Your task to perform on an android device: Find coffee shops on Maps Image 0: 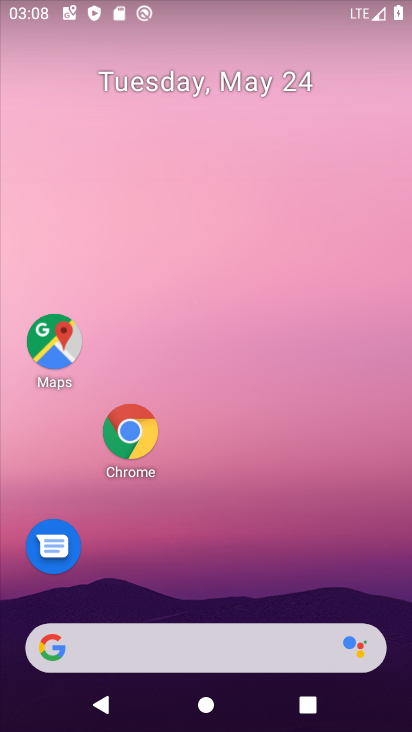
Step 0: drag from (341, 199) to (341, 88)
Your task to perform on an android device: Find coffee shops on Maps Image 1: 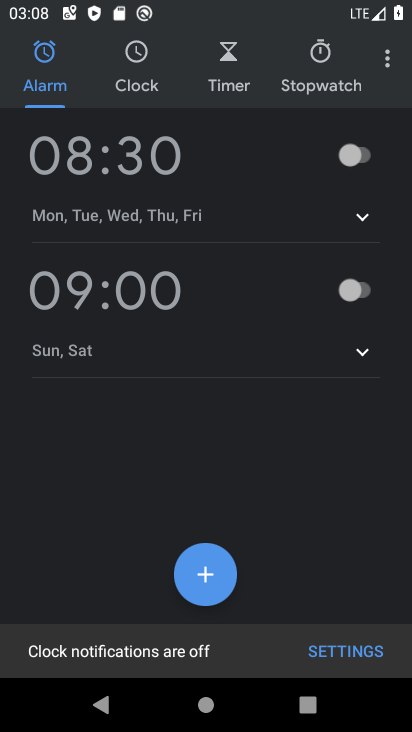
Step 1: press home button
Your task to perform on an android device: Find coffee shops on Maps Image 2: 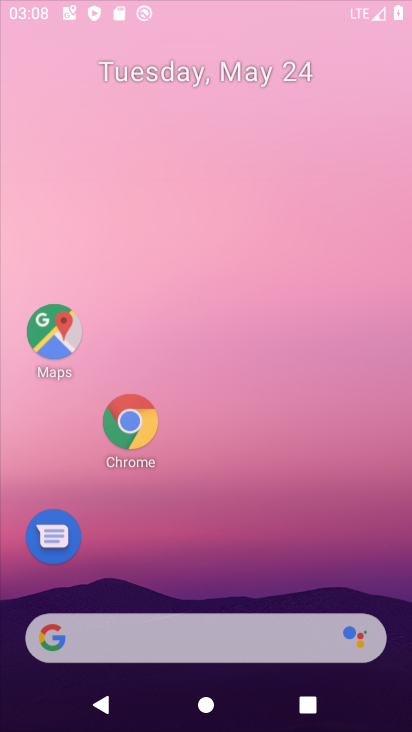
Step 2: drag from (137, 558) to (201, 155)
Your task to perform on an android device: Find coffee shops on Maps Image 3: 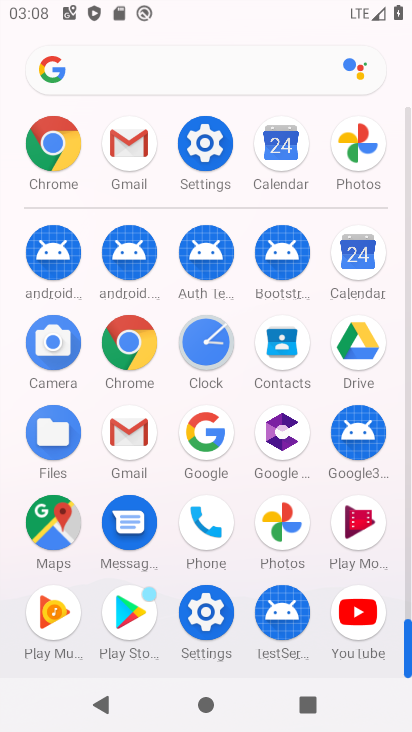
Step 3: click (45, 515)
Your task to perform on an android device: Find coffee shops on Maps Image 4: 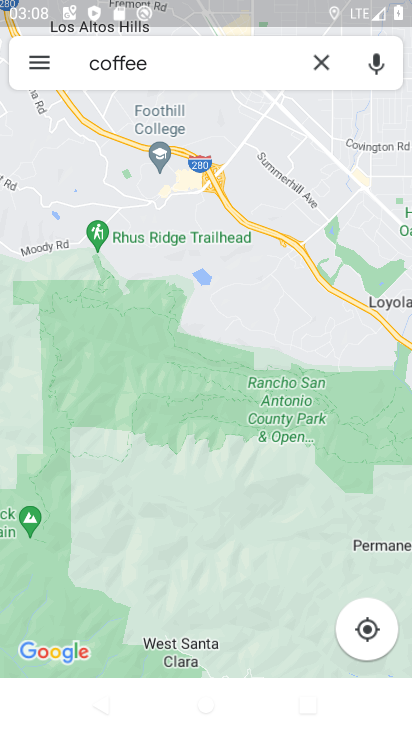
Step 4: click (319, 60)
Your task to perform on an android device: Find coffee shops on Maps Image 5: 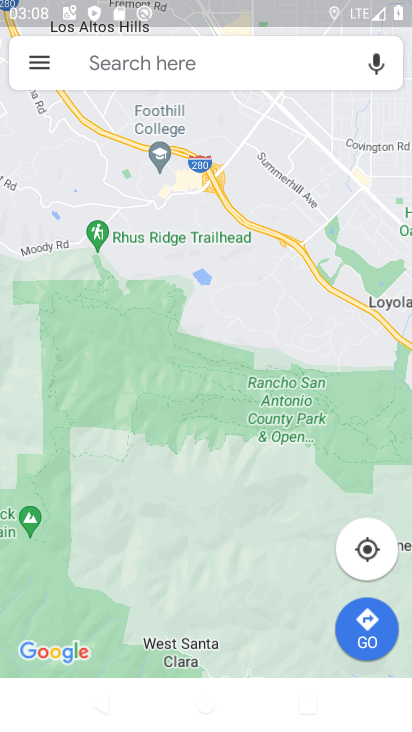
Step 5: click (156, 72)
Your task to perform on an android device: Find coffee shops on Maps Image 6: 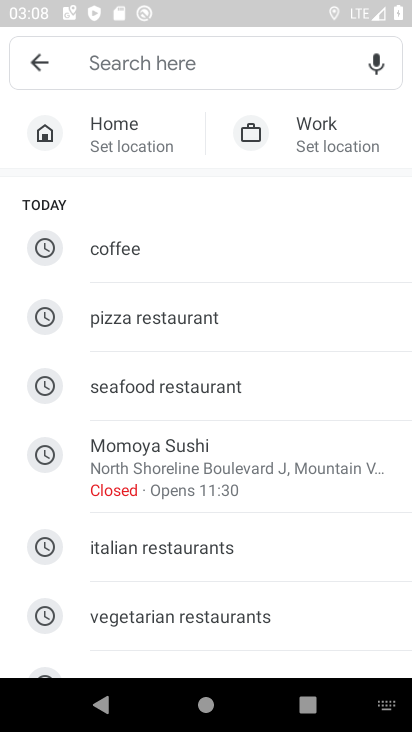
Step 6: click (136, 242)
Your task to perform on an android device: Find coffee shops on Maps Image 7: 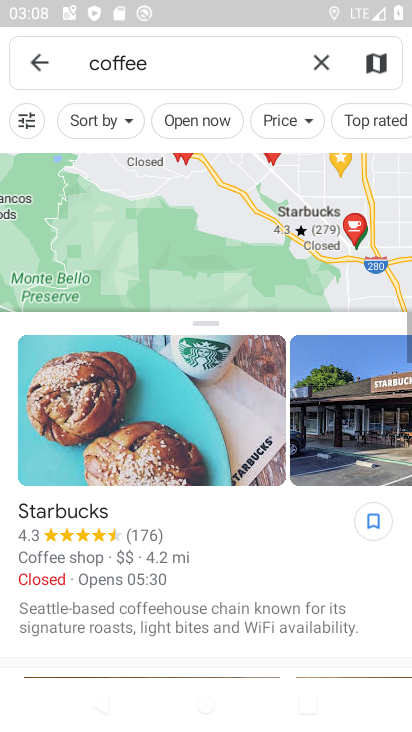
Step 7: task complete